Your task to perform on an android device: find which apps use the phone's location Image 0: 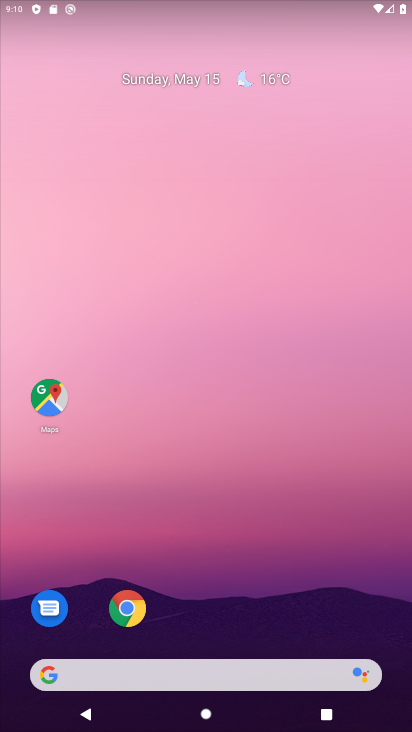
Step 0: drag from (208, 641) to (141, 129)
Your task to perform on an android device: find which apps use the phone's location Image 1: 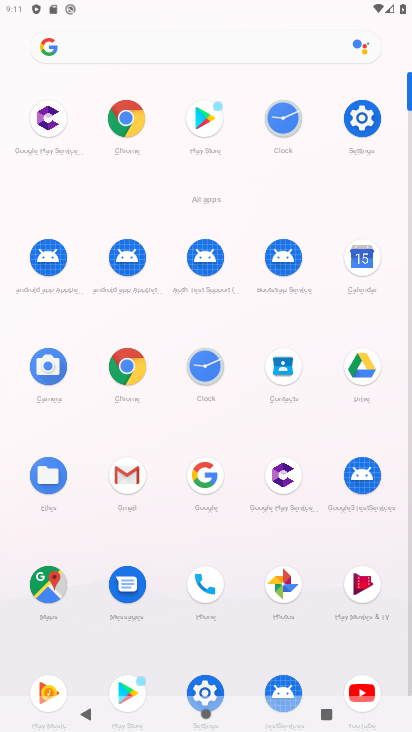
Step 1: click (203, 678)
Your task to perform on an android device: find which apps use the phone's location Image 2: 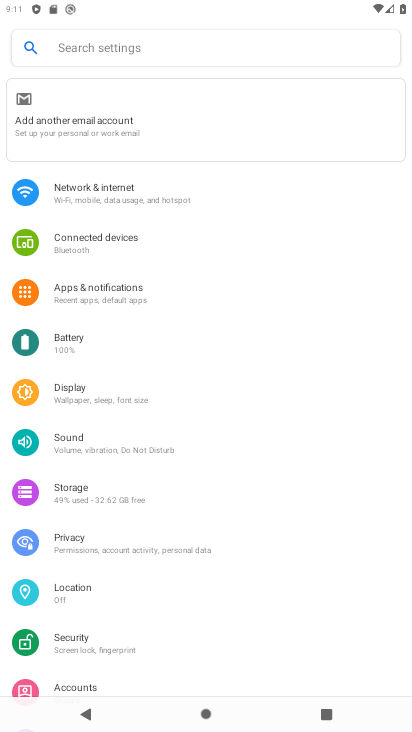
Step 2: click (102, 585)
Your task to perform on an android device: find which apps use the phone's location Image 3: 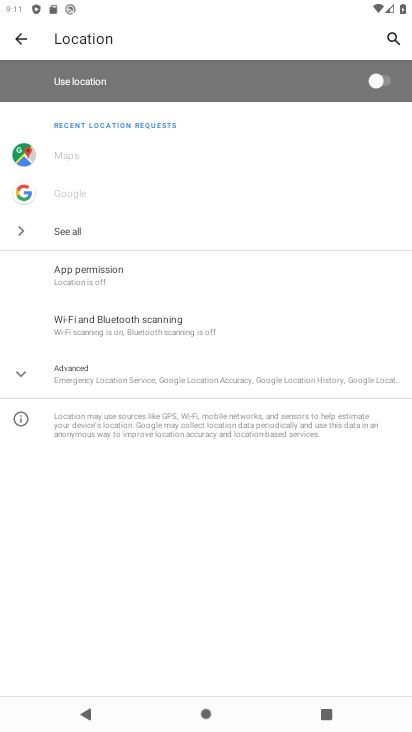
Step 3: click (72, 286)
Your task to perform on an android device: find which apps use the phone's location Image 4: 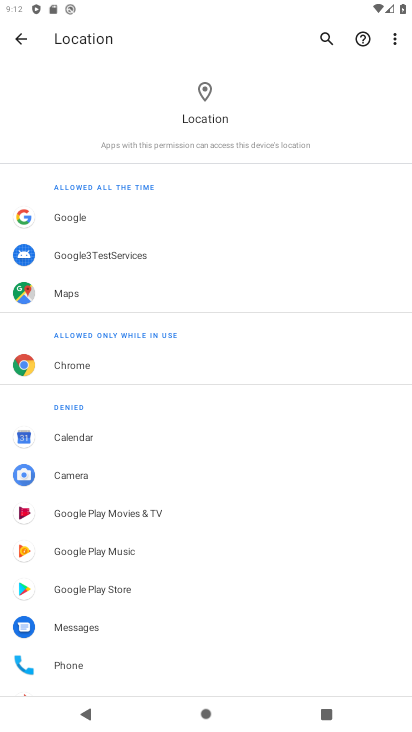
Step 4: task complete